Your task to perform on an android device: Open Google Maps Image 0: 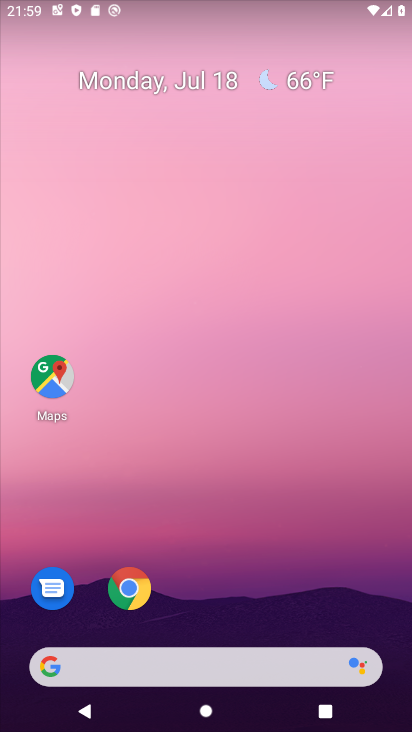
Step 0: press home button
Your task to perform on an android device: Open Google Maps Image 1: 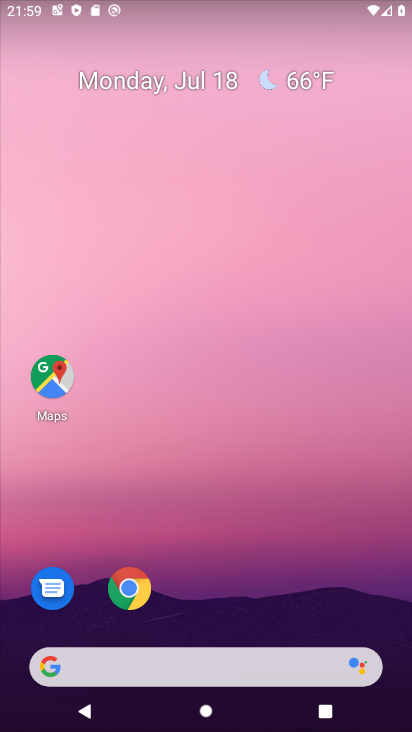
Step 1: drag from (167, 675) to (305, 81)
Your task to perform on an android device: Open Google Maps Image 2: 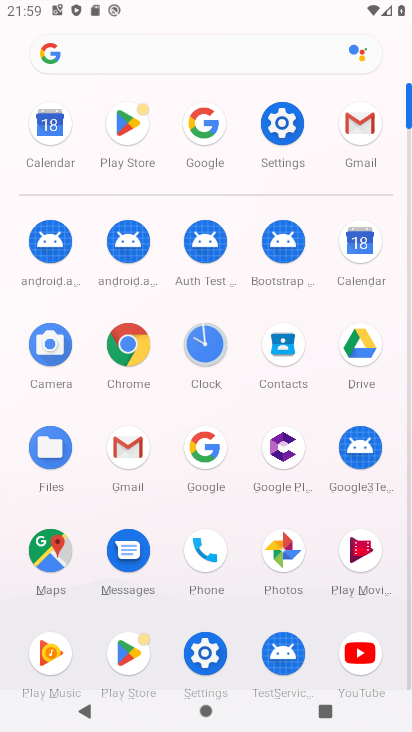
Step 2: click (47, 554)
Your task to perform on an android device: Open Google Maps Image 3: 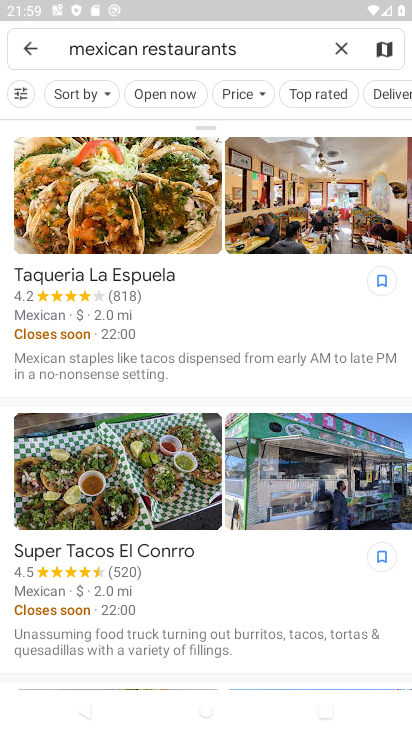
Step 3: click (35, 51)
Your task to perform on an android device: Open Google Maps Image 4: 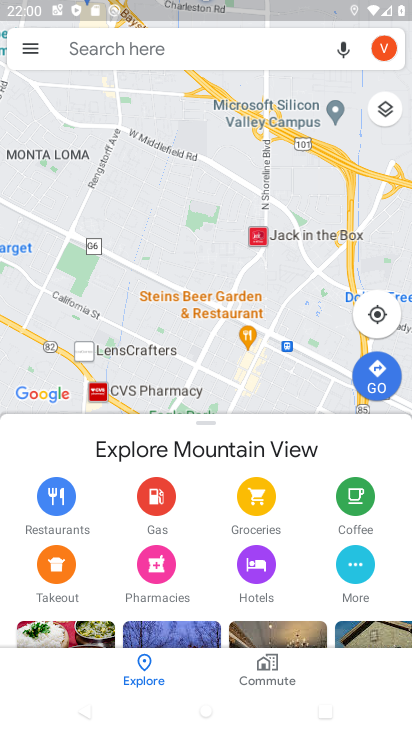
Step 4: task complete